Your task to perform on an android device: toggle pop-ups in chrome Image 0: 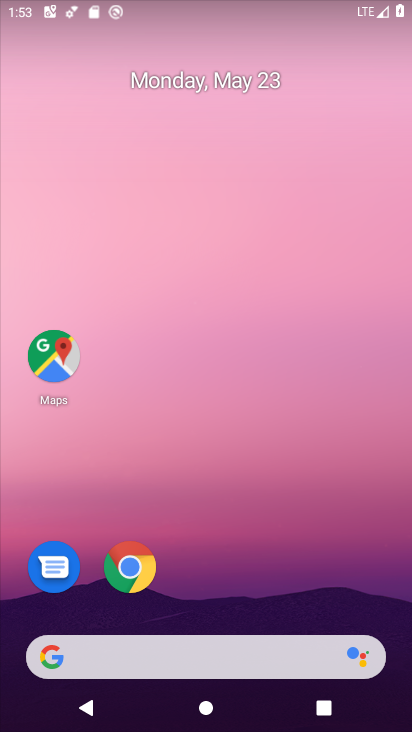
Step 0: drag from (222, 602) to (221, 260)
Your task to perform on an android device: toggle pop-ups in chrome Image 1: 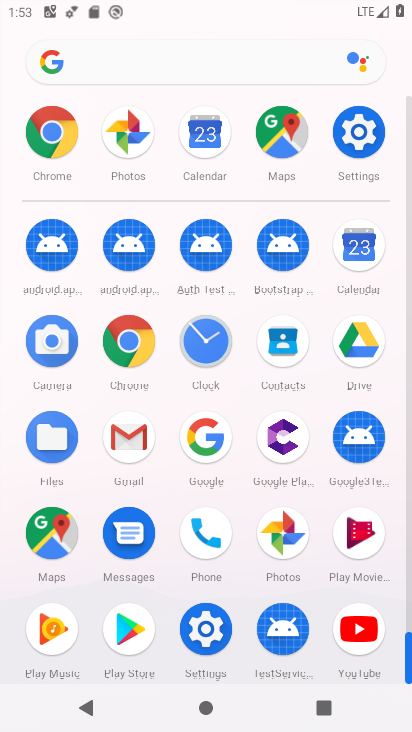
Step 1: click (203, 638)
Your task to perform on an android device: toggle pop-ups in chrome Image 2: 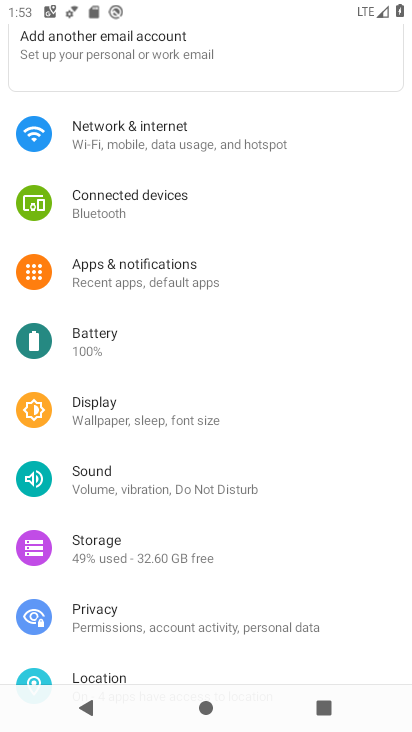
Step 2: press home button
Your task to perform on an android device: toggle pop-ups in chrome Image 3: 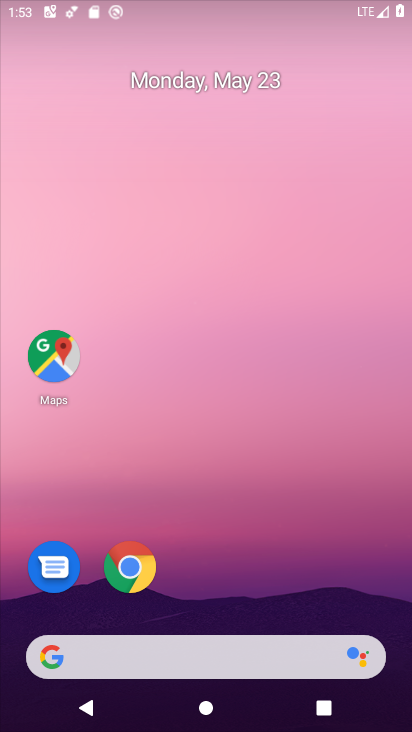
Step 3: drag from (232, 578) to (225, 180)
Your task to perform on an android device: toggle pop-ups in chrome Image 4: 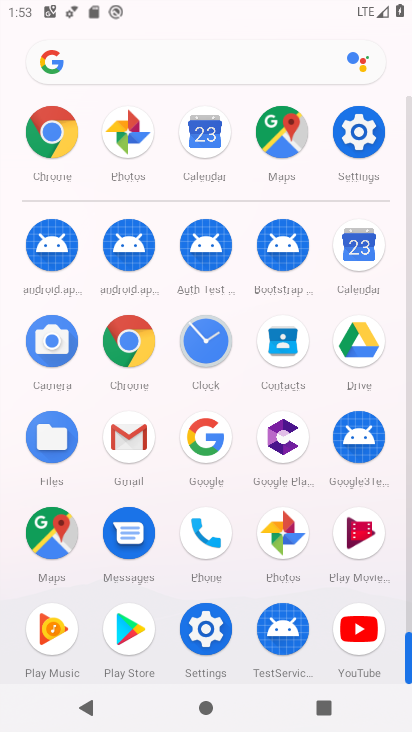
Step 4: click (132, 363)
Your task to perform on an android device: toggle pop-ups in chrome Image 5: 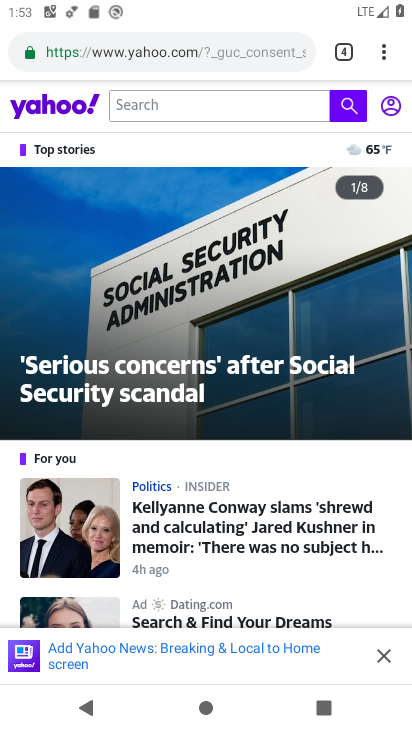
Step 5: click (380, 58)
Your task to perform on an android device: toggle pop-ups in chrome Image 6: 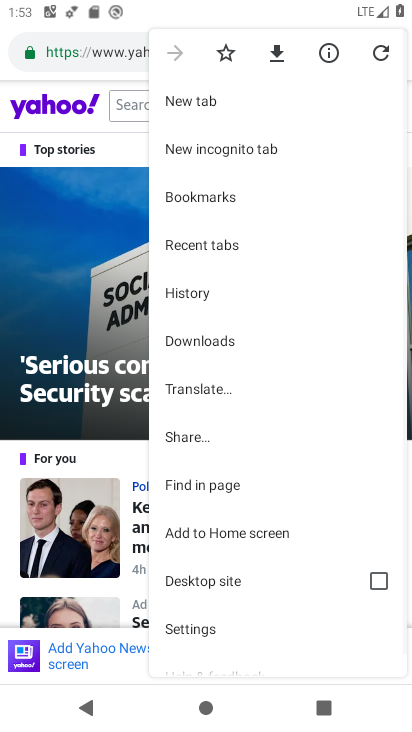
Step 6: click (218, 631)
Your task to perform on an android device: toggle pop-ups in chrome Image 7: 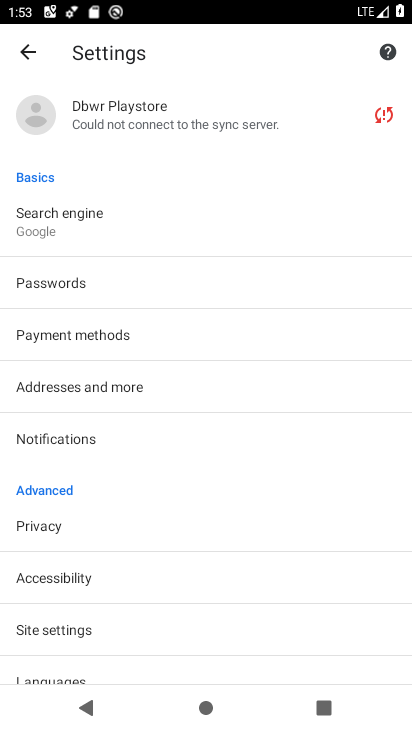
Step 7: click (103, 640)
Your task to perform on an android device: toggle pop-ups in chrome Image 8: 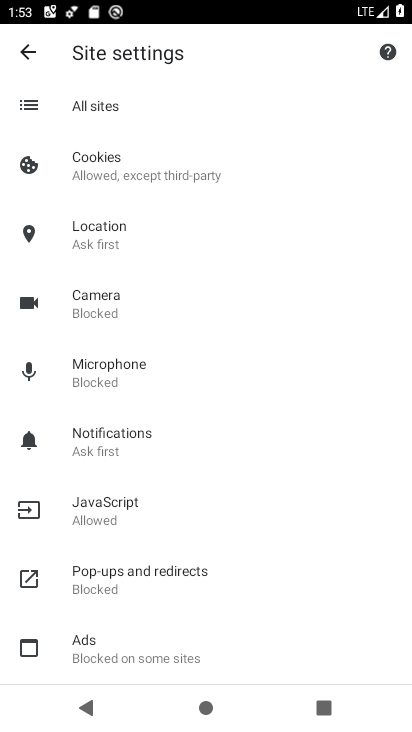
Step 8: click (168, 582)
Your task to perform on an android device: toggle pop-ups in chrome Image 9: 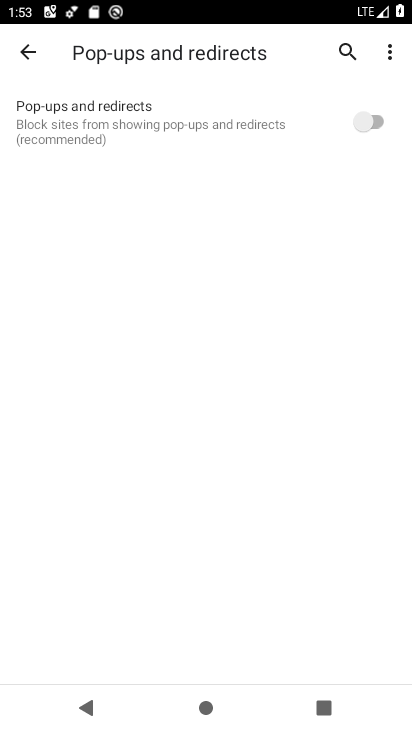
Step 9: click (367, 119)
Your task to perform on an android device: toggle pop-ups in chrome Image 10: 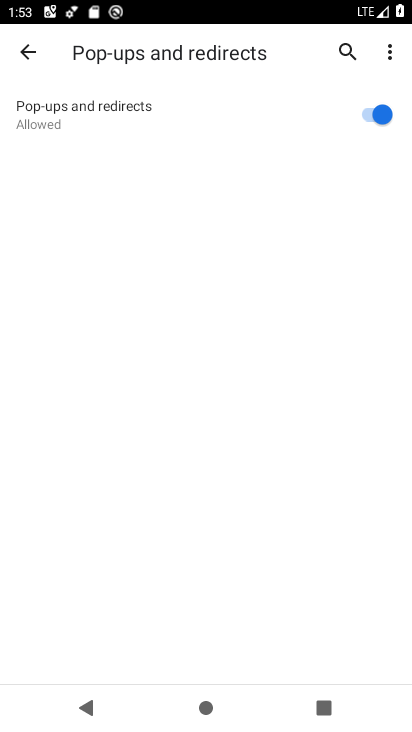
Step 10: task complete